Your task to perform on an android device: turn on improve location accuracy Image 0: 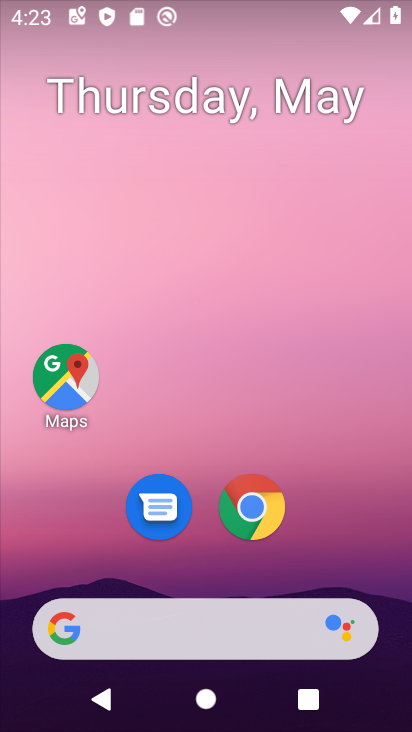
Step 0: drag from (334, 573) to (333, 81)
Your task to perform on an android device: turn on improve location accuracy Image 1: 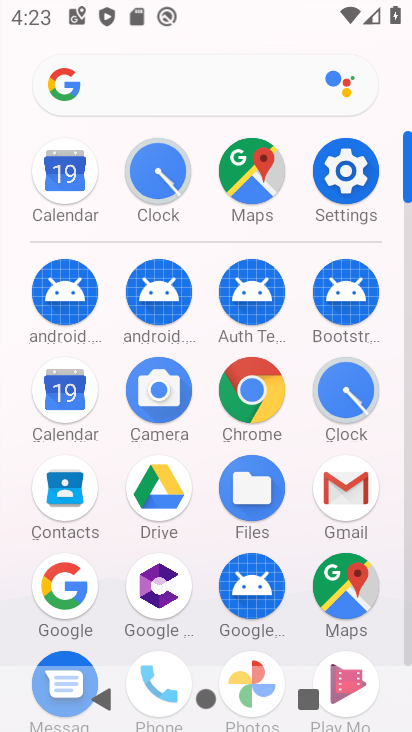
Step 1: click (343, 184)
Your task to perform on an android device: turn on improve location accuracy Image 2: 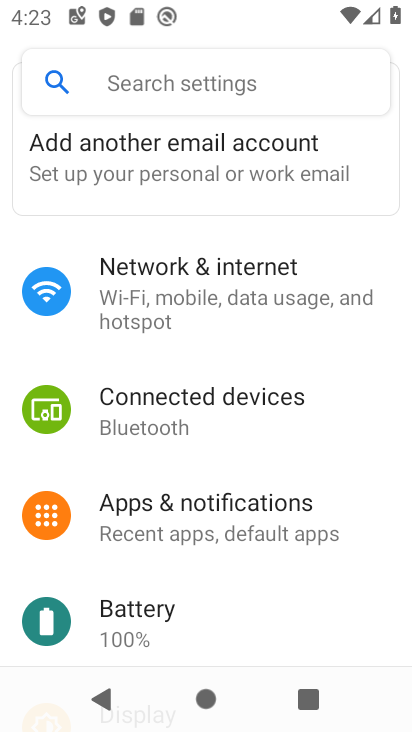
Step 2: drag from (206, 584) to (184, 346)
Your task to perform on an android device: turn on improve location accuracy Image 3: 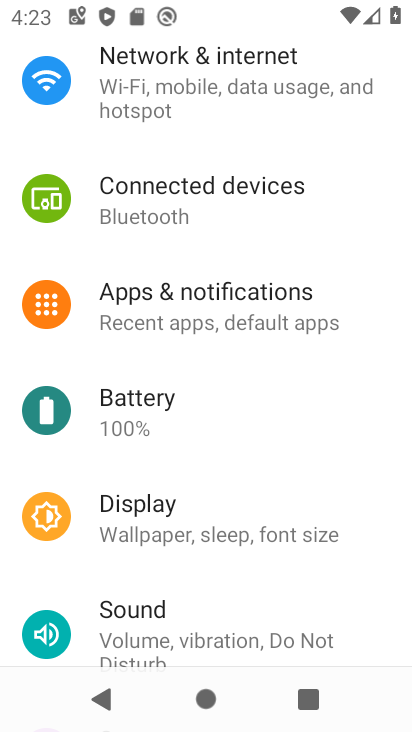
Step 3: drag from (181, 587) to (115, 239)
Your task to perform on an android device: turn on improve location accuracy Image 4: 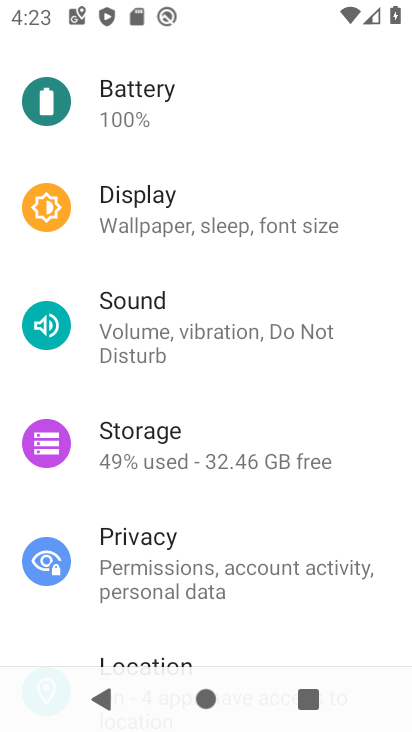
Step 4: drag from (206, 543) to (228, 275)
Your task to perform on an android device: turn on improve location accuracy Image 5: 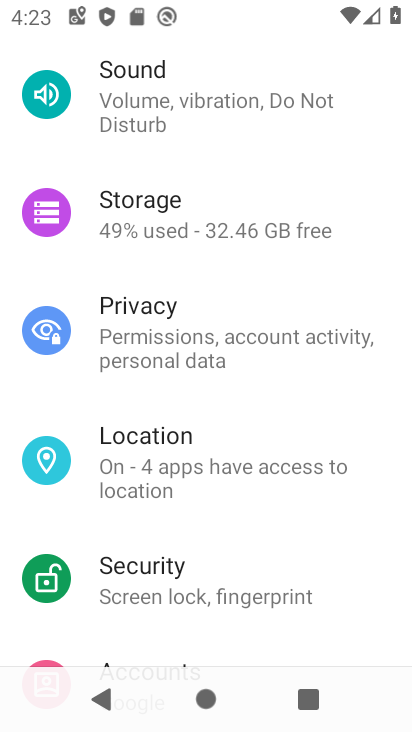
Step 5: click (204, 465)
Your task to perform on an android device: turn on improve location accuracy Image 6: 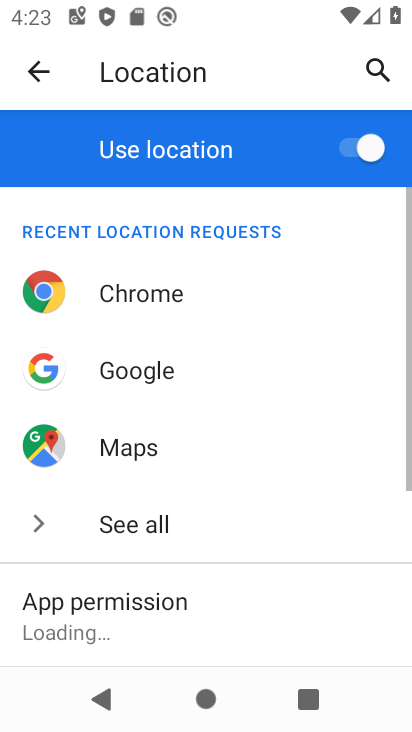
Step 6: drag from (224, 543) to (268, 52)
Your task to perform on an android device: turn on improve location accuracy Image 7: 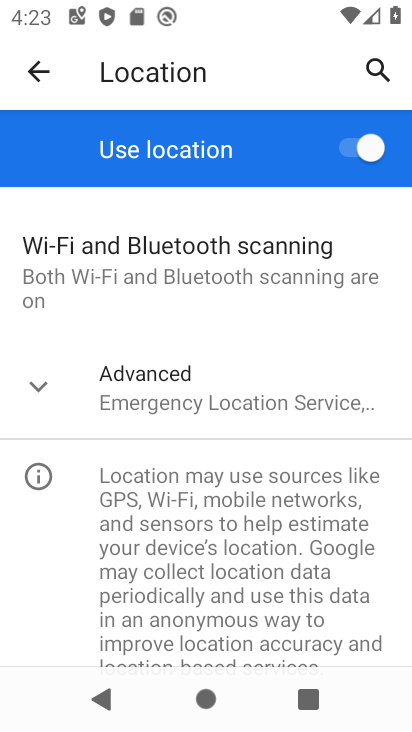
Step 7: click (215, 372)
Your task to perform on an android device: turn on improve location accuracy Image 8: 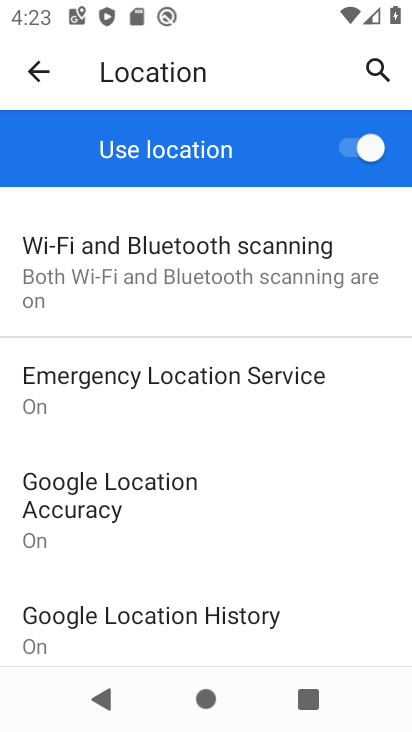
Step 8: click (84, 526)
Your task to perform on an android device: turn on improve location accuracy Image 9: 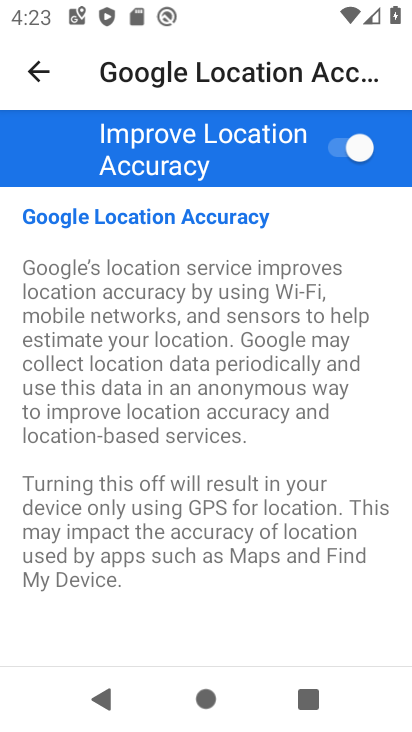
Step 9: task complete